Your task to perform on an android device: Go to Yahoo.com Image 0: 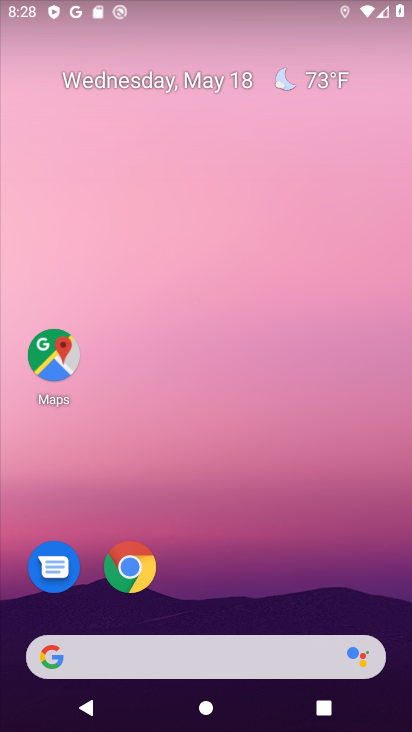
Step 0: drag from (275, 476) to (255, 43)
Your task to perform on an android device: Go to Yahoo.com Image 1: 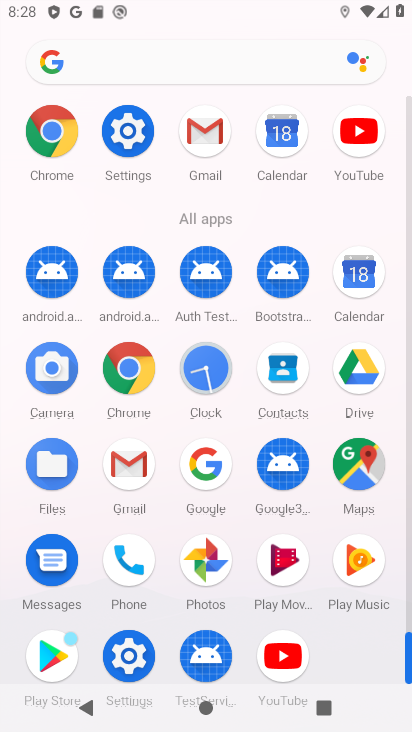
Step 1: click (129, 364)
Your task to perform on an android device: Go to Yahoo.com Image 2: 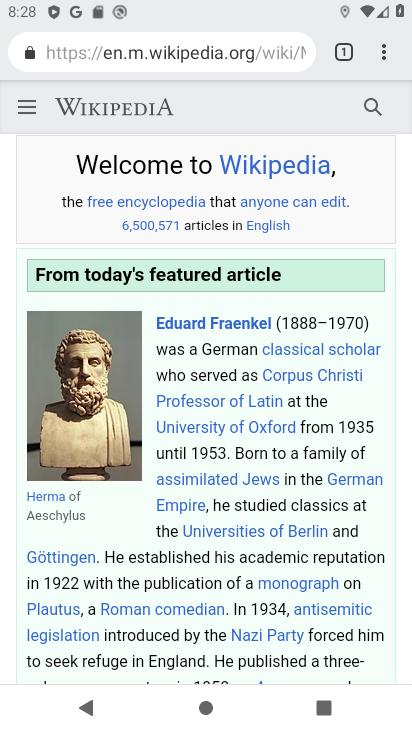
Step 2: click (185, 52)
Your task to perform on an android device: Go to Yahoo.com Image 3: 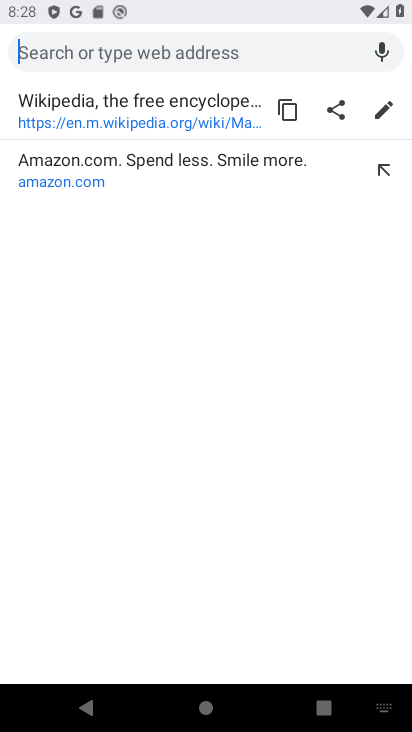
Step 3: type "Yahoo.com"
Your task to perform on an android device: Go to Yahoo.com Image 4: 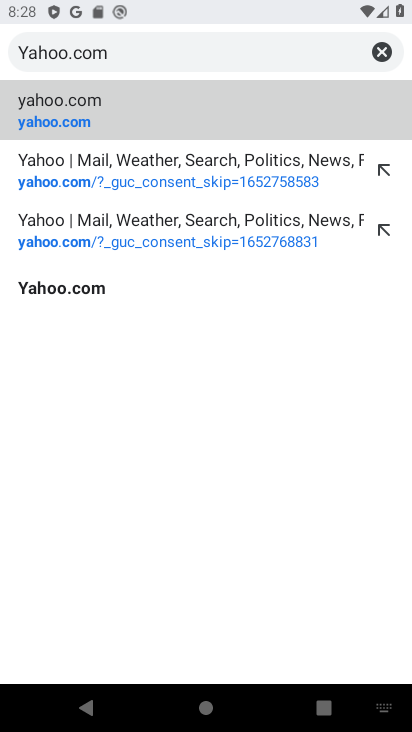
Step 4: click (132, 105)
Your task to perform on an android device: Go to Yahoo.com Image 5: 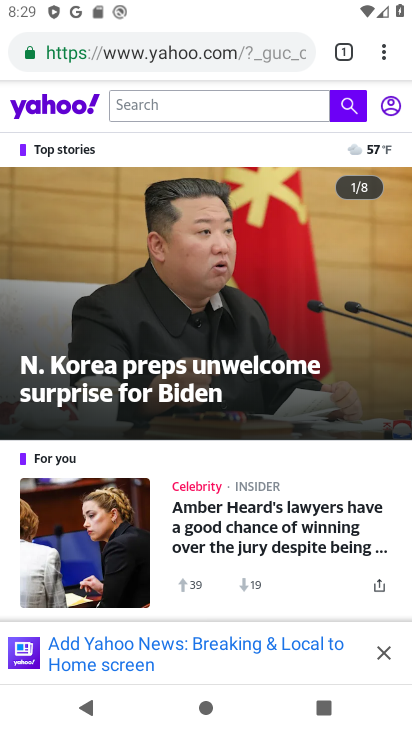
Step 5: task complete